Your task to perform on an android device: change the clock display to digital Image 0: 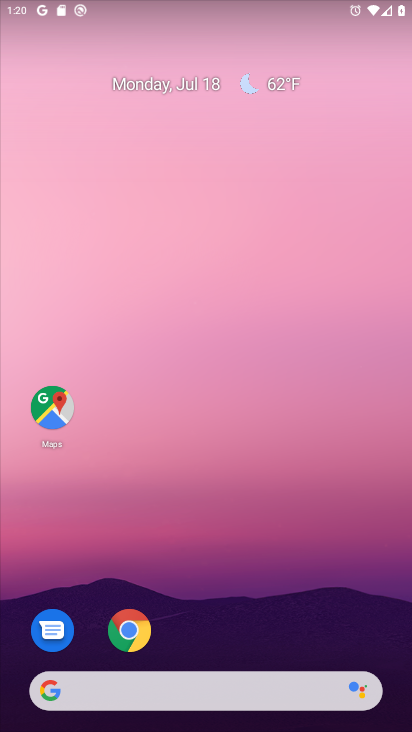
Step 0: drag from (272, 670) to (224, 254)
Your task to perform on an android device: change the clock display to digital Image 1: 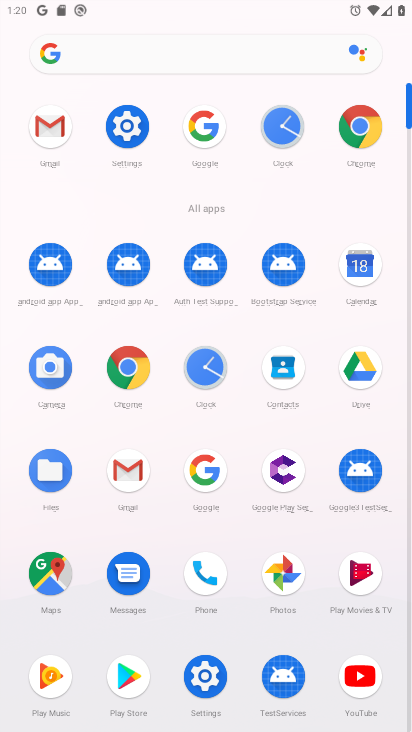
Step 1: click (276, 124)
Your task to perform on an android device: change the clock display to digital Image 2: 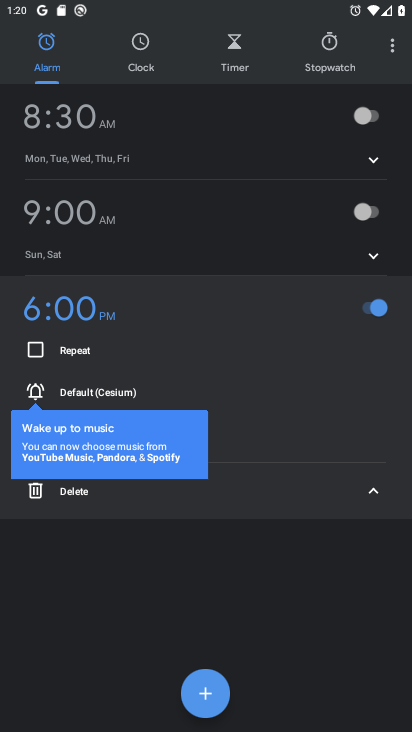
Step 2: click (400, 54)
Your task to perform on an android device: change the clock display to digital Image 3: 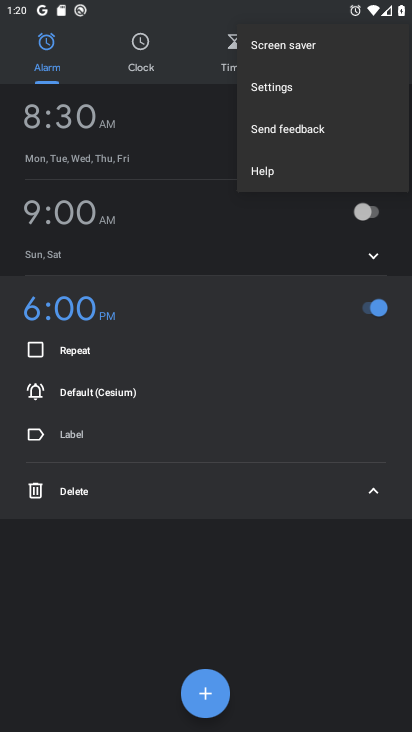
Step 3: click (257, 87)
Your task to perform on an android device: change the clock display to digital Image 4: 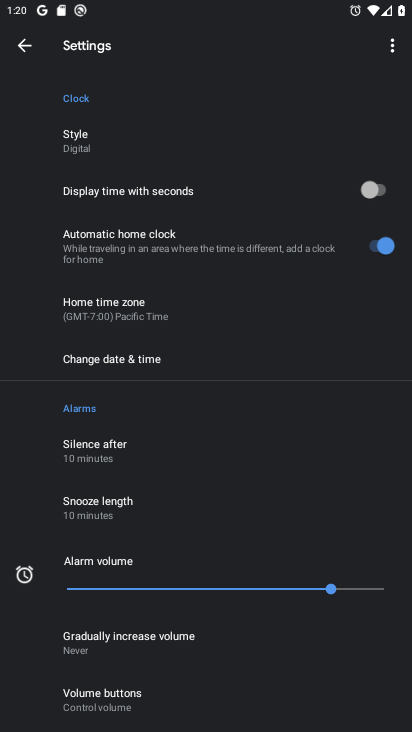
Step 4: click (93, 136)
Your task to perform on an android device: change the clock display to digital Image 5: 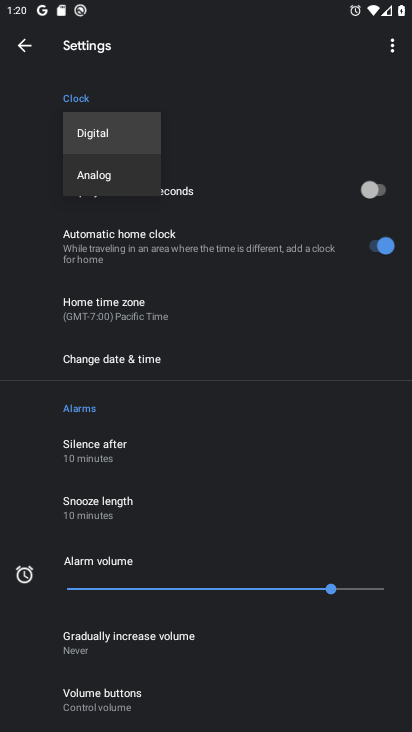
Step 5: click (106, 136)
Your task to perform on an android device: change the clock display to digital Image 6: 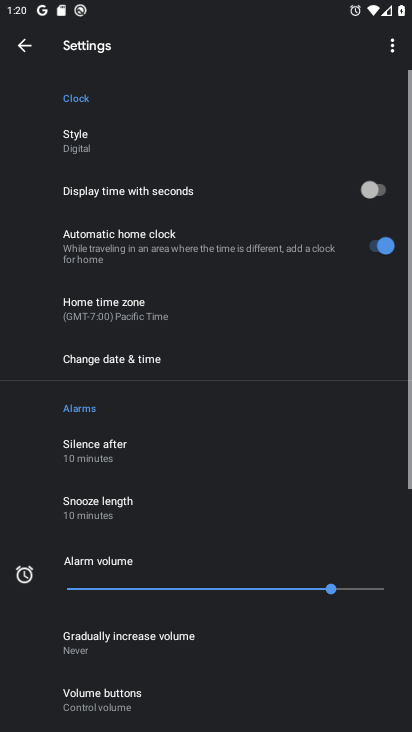
Step 6: task complete